Your task to perform on an android device: open chrome and create a bookmark for the current page Image 0: 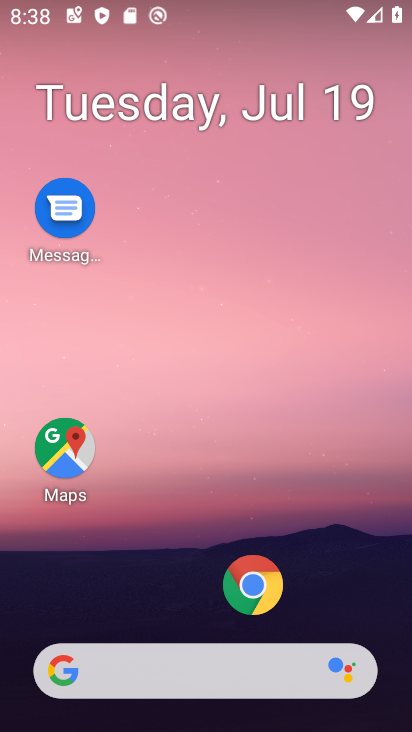
Step 0: drag from (201, 639) to (112, 82)
Your task to perform on an android device: open chrome and create a bookmark for the current page Image 1: 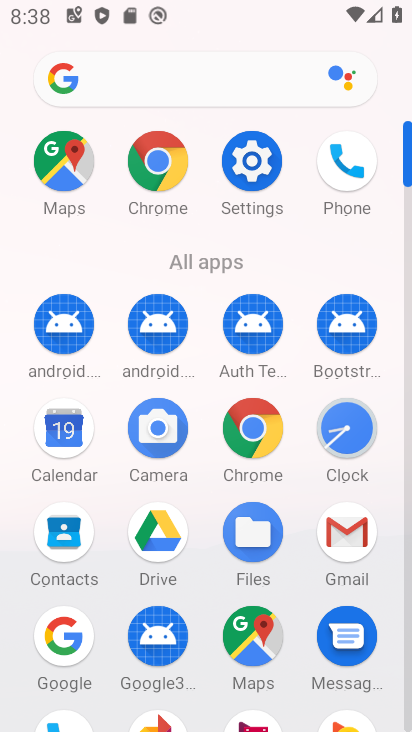
Step 1: click (274, 430)
Your task to perform on an android device: open chrome and create a bookmark for the current page Image 2: 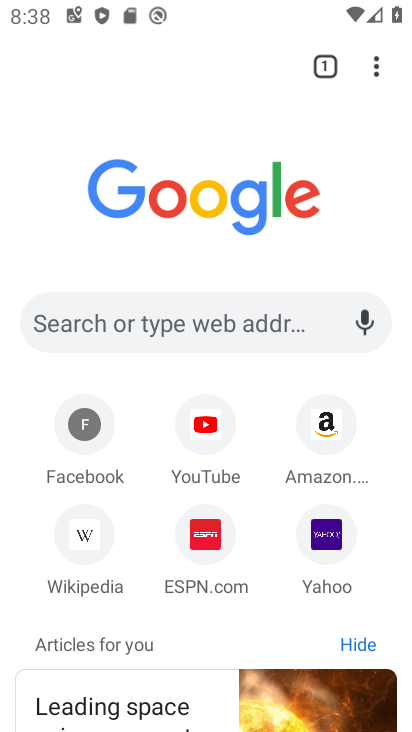
Step 2: click (377, 65)
Your task to perform on an android device: open chrome and create a bookmark for the current page Image 3: 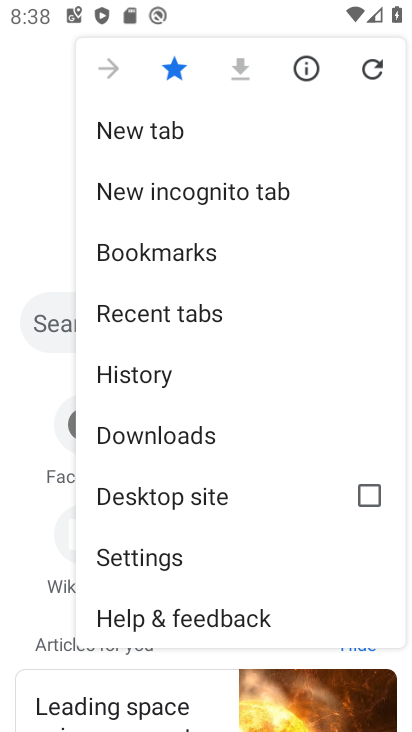
Step 3: task complete